Your task to perform on an android device: What's on my calendar today? Image 0: 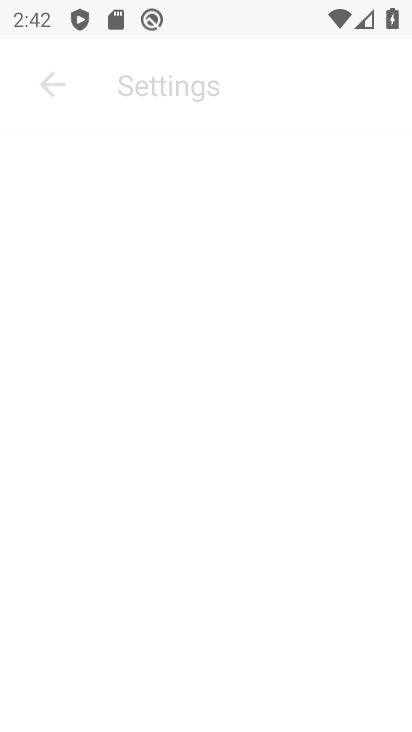
Step 0: drag from (378, 590) to (340, 163)
Your task to perform on an android device: What's on my calendar today? Image 1: 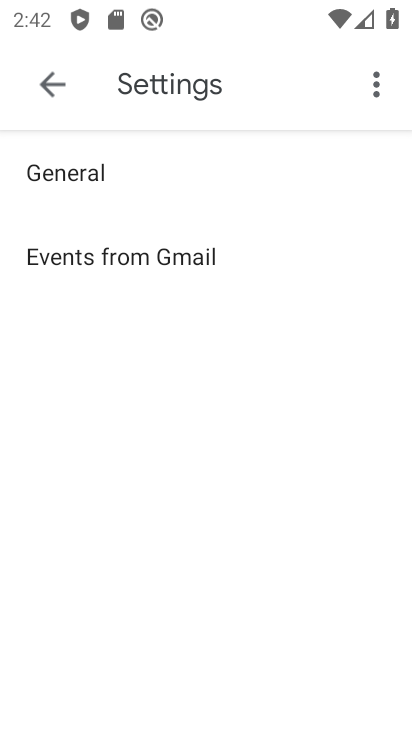
Step 1: press home button
Your task to perform on an android device: What's on my calendar today? Image 2: 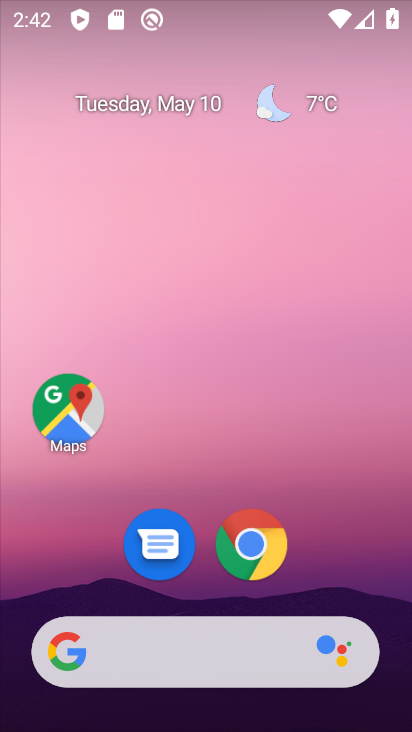
Step 2: drag from (335, 581) to (317, 159)
Your task to perform on an android device: What's on my calendar today? Image 3: 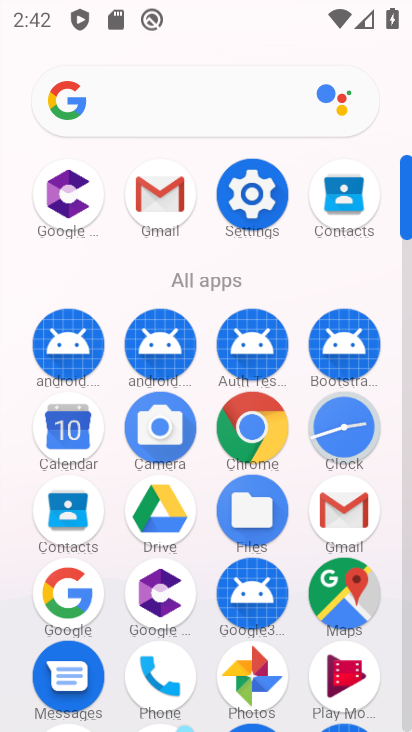
Step 3: click (69, 450)
Your task to perform on an android device: What's on my calendar today? Image 4: 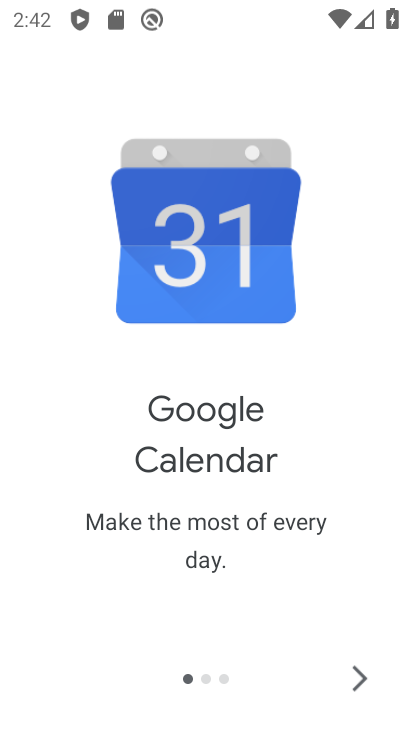
Step 4: click (356, 682)
Your task to perform on an android device: What's on my calendar today? Image 5: 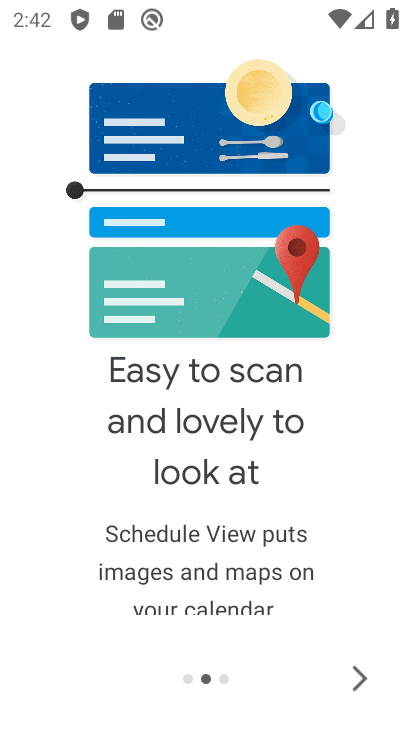
Step 5: click (356, 679)
Your task to perform on an android device: What's on my calendar today? Image 6: 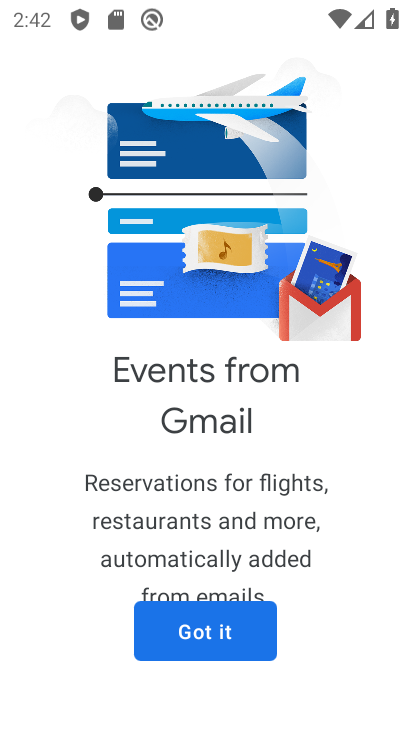
Step 6: click (244, 662)
Your task to perform on an android device: What's on my calendar today? Image 7: 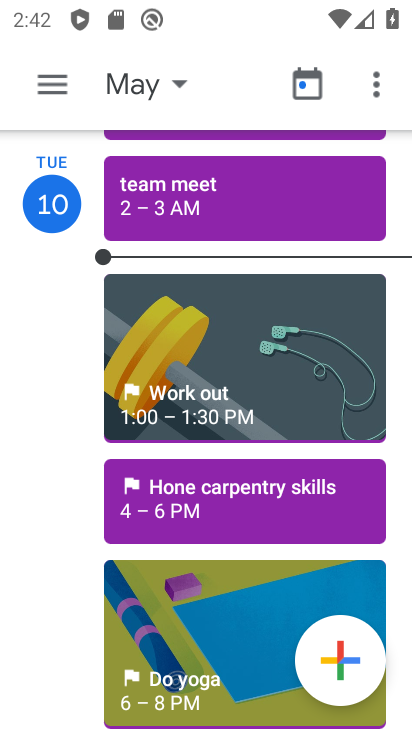
Step 7: task complete